Your task to perform on an android device: toggle priority inbox in the gmail app Image 0: 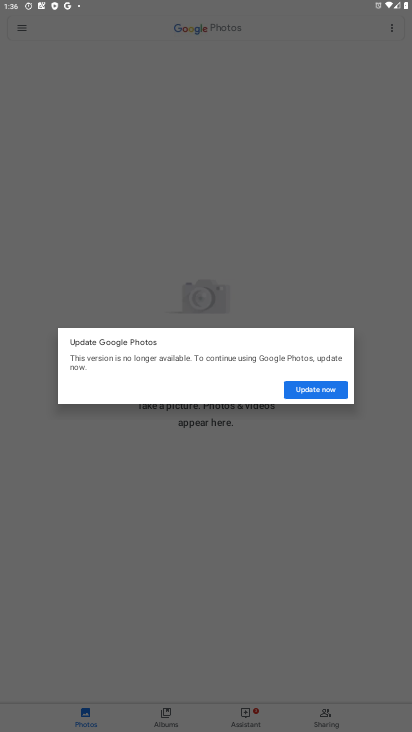
Step 0: press home button
Your task to perform on an android device: toggle priority inbox in the gmail app Image 1: 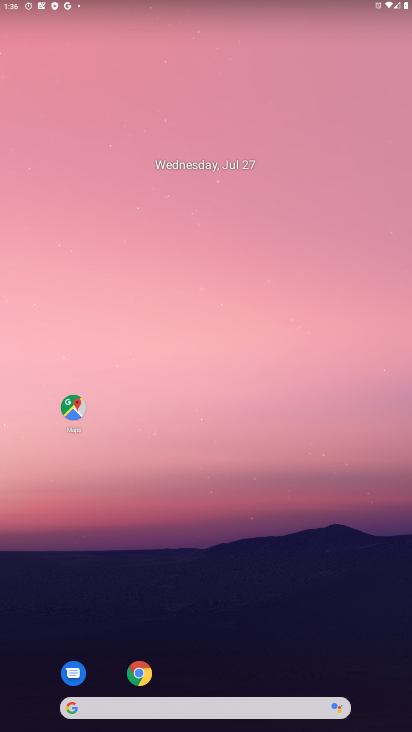
Step 1: drag from (238, 683) to (193, 129)
Your task to perform on an android device: toggle priority inbox in the gmail app Image 2: 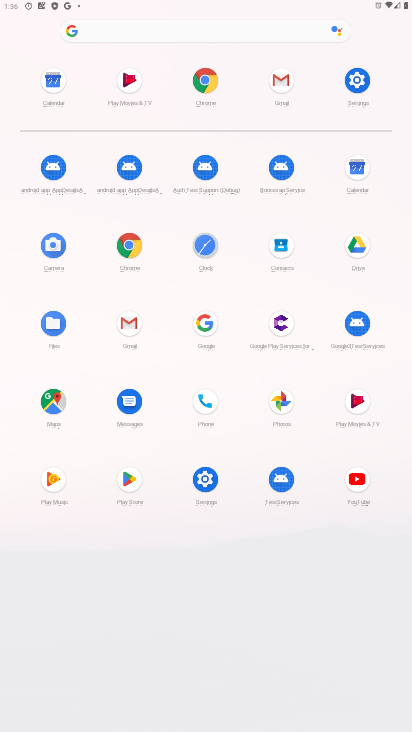
Step 2: click (273, 86)
Your task to perform on an android device: toggle priority inbox in the gmail app Image 3: 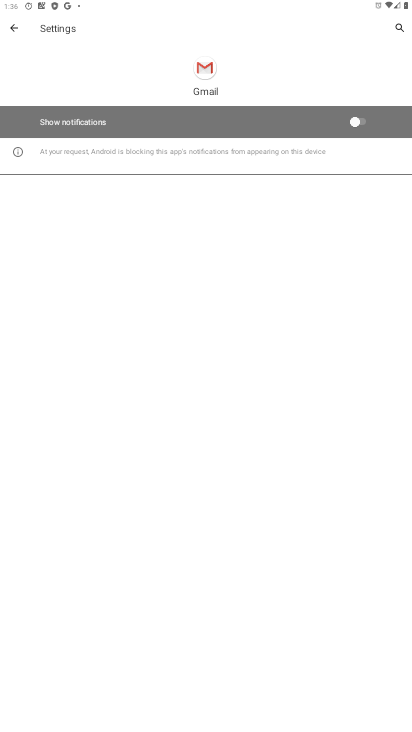
Step 3: click (10, 30)
Your task to perform on an android device: toggle priority inbox in the gmail app Image 4: 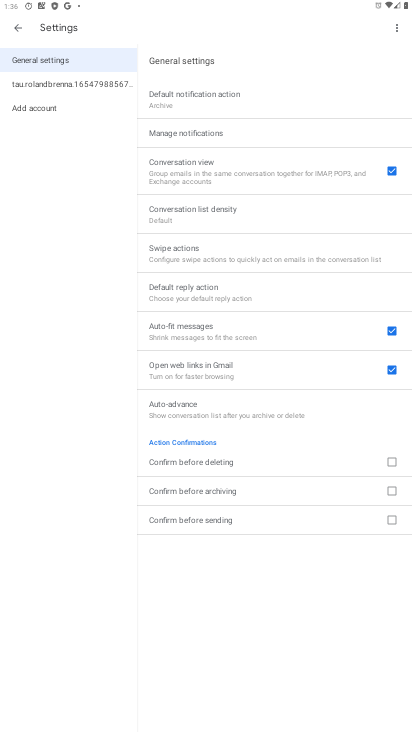
Step 4: click (46, 89)
Your task to perform on an android device: toggle priority inbox in the gmail app Image 5: 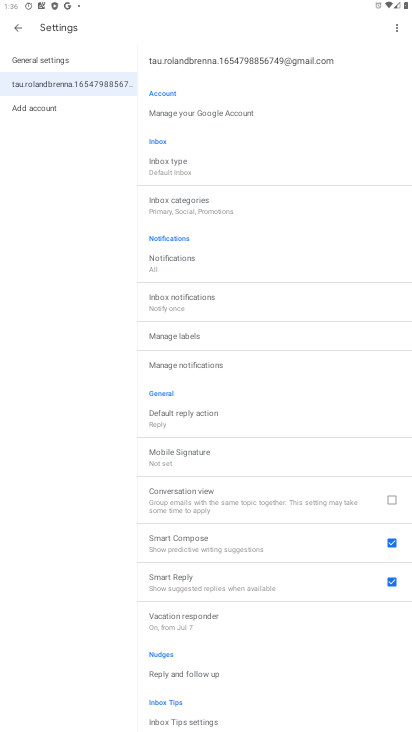
Step 5: click (169, 168)
Your task to perform on an android device: toggle priority inbox in the gmail app Image 6: 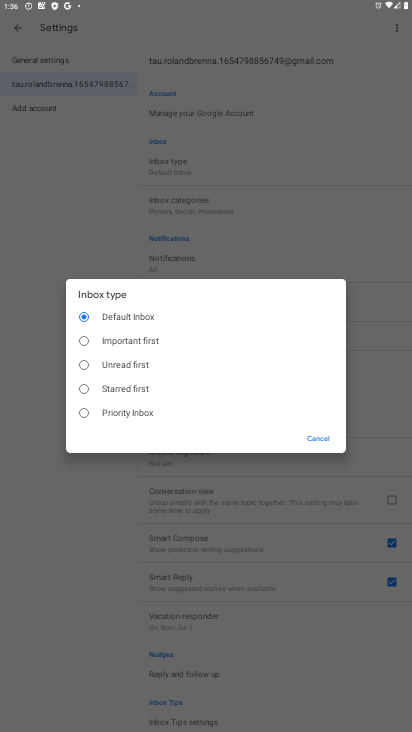
Step 6: click (88, 412)
Your task to perform on an android device: toggle priority inbox in the gmail app Image 7: 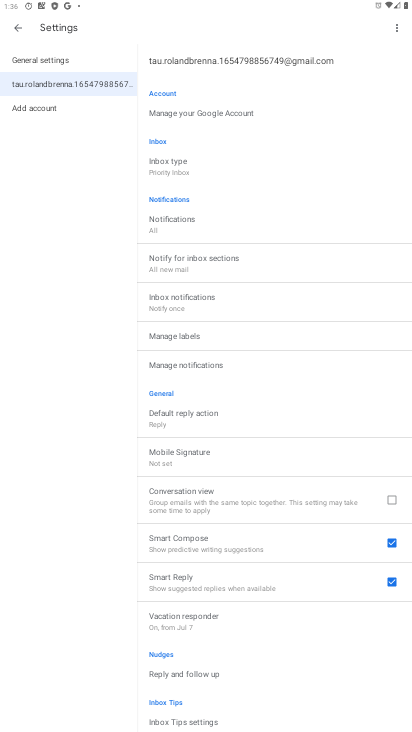
Step 7: task complete